Your task to perform on an android device: turn smart compose on in the gmail app Image 0: 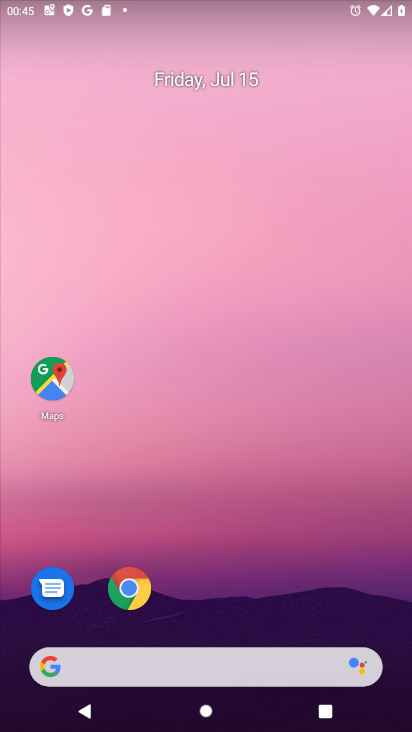
Step 0: press home button
Your task to perform on an android device: turn smart compose on in the gmail app Image 1: 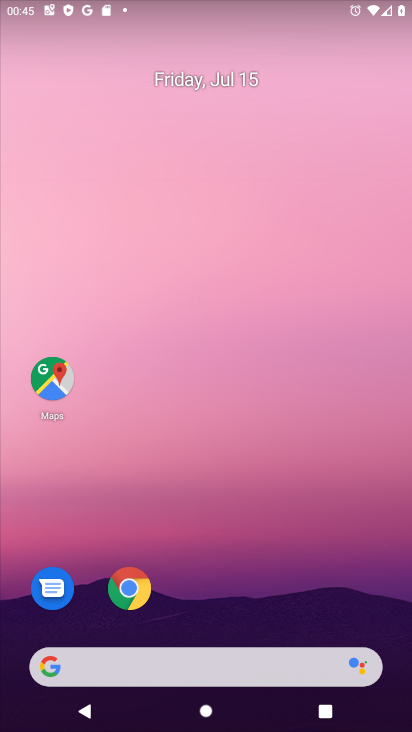
Step 1: drag from (159, 675) to (320, 159)
Your task to perform on an android device: turn smart compose on in the gmail app Image 2: 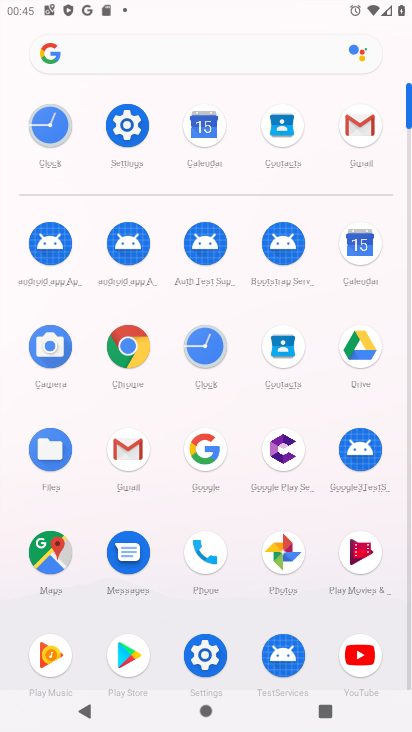
Step 2: click (356, 137)
Your task to perform on an android device: turn smart compose on in the gmail app Image 3: 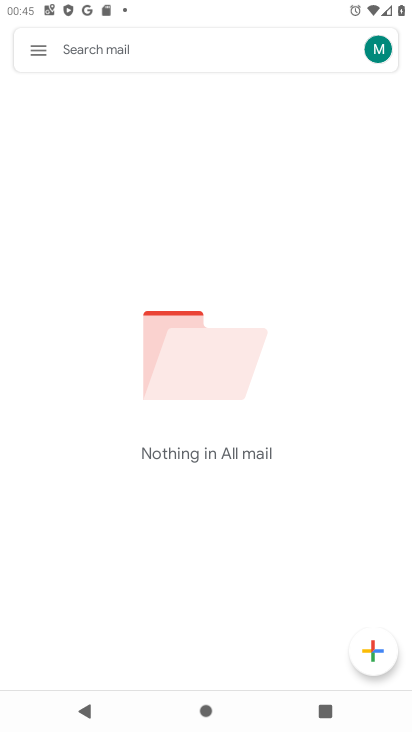
Step 3: click (40, 48)
Your task to perform on an android device: turn smart compose on in the gmail app Image 4: 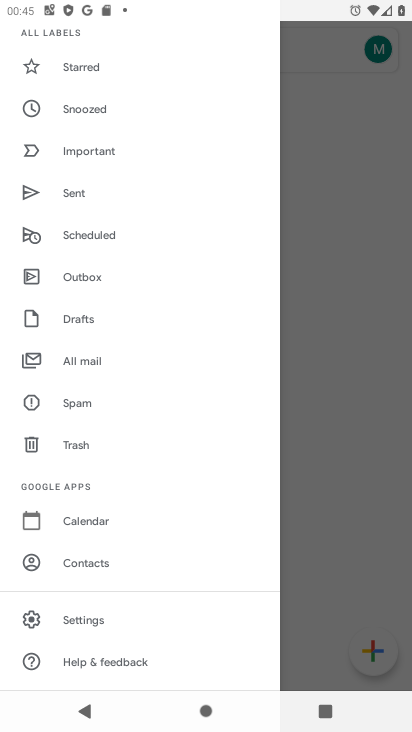
Step 4: click (86, 621)
Your task to perform on an android device: turn smart compose on in the gmail app Image 5: 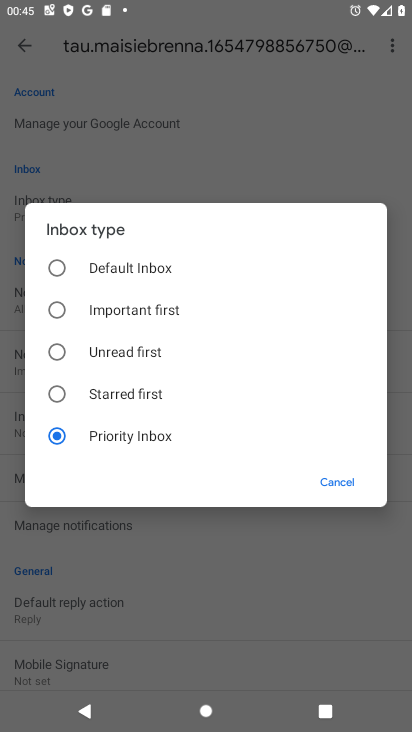
Step 5: click (334, 484)
Your task to perform on an android device: turn smart compose on in the gmail app Image 6: 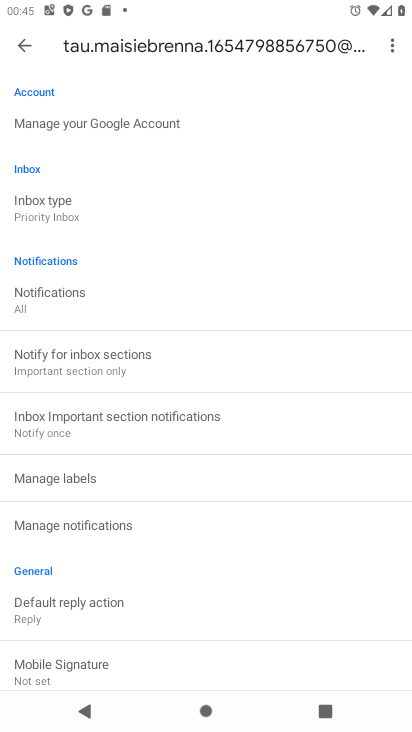
Step 6: task complete